Your task to perform on an android device: Open Youtube and go to "Your channel" Image 0: 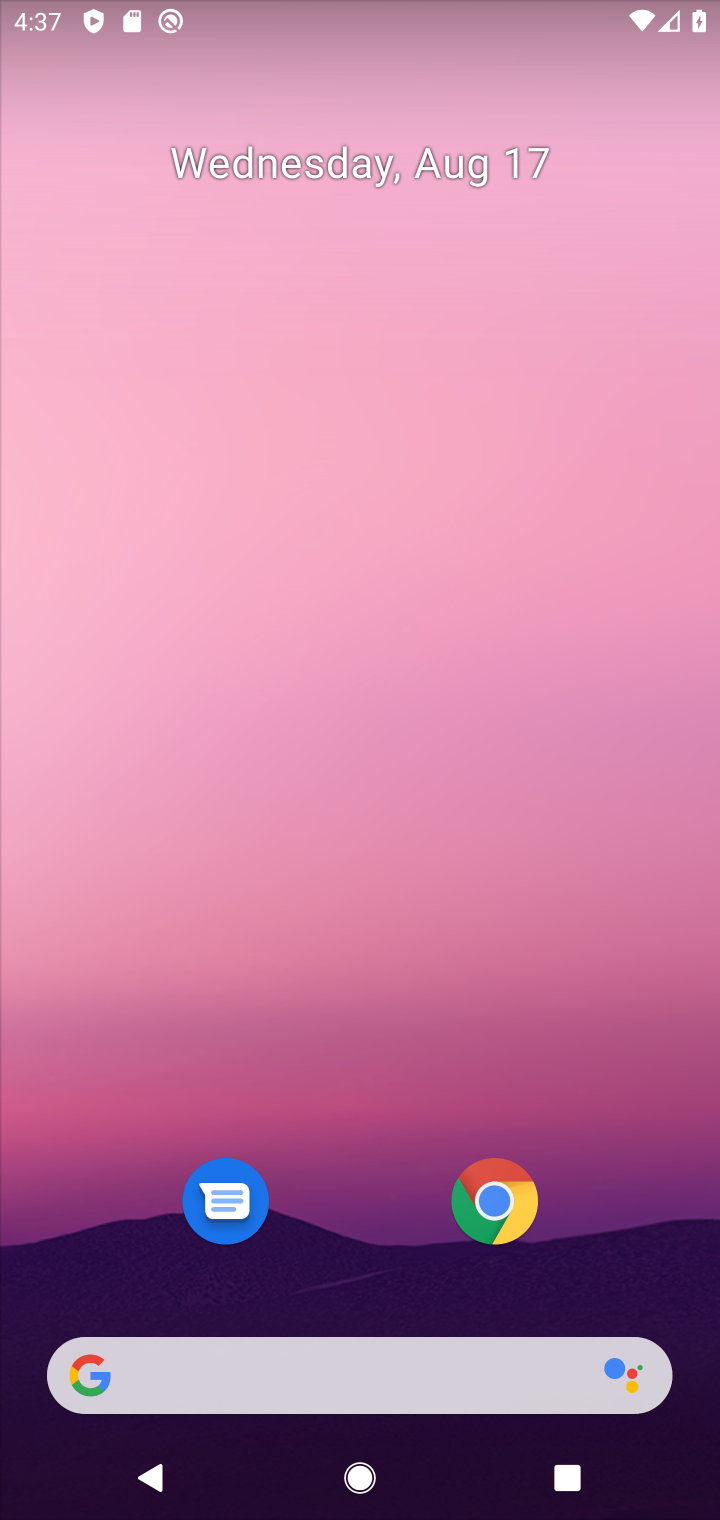
Step 0: press home button
Your task to perform on an android device: Open Youtube and go to "Your channel" Image 1: 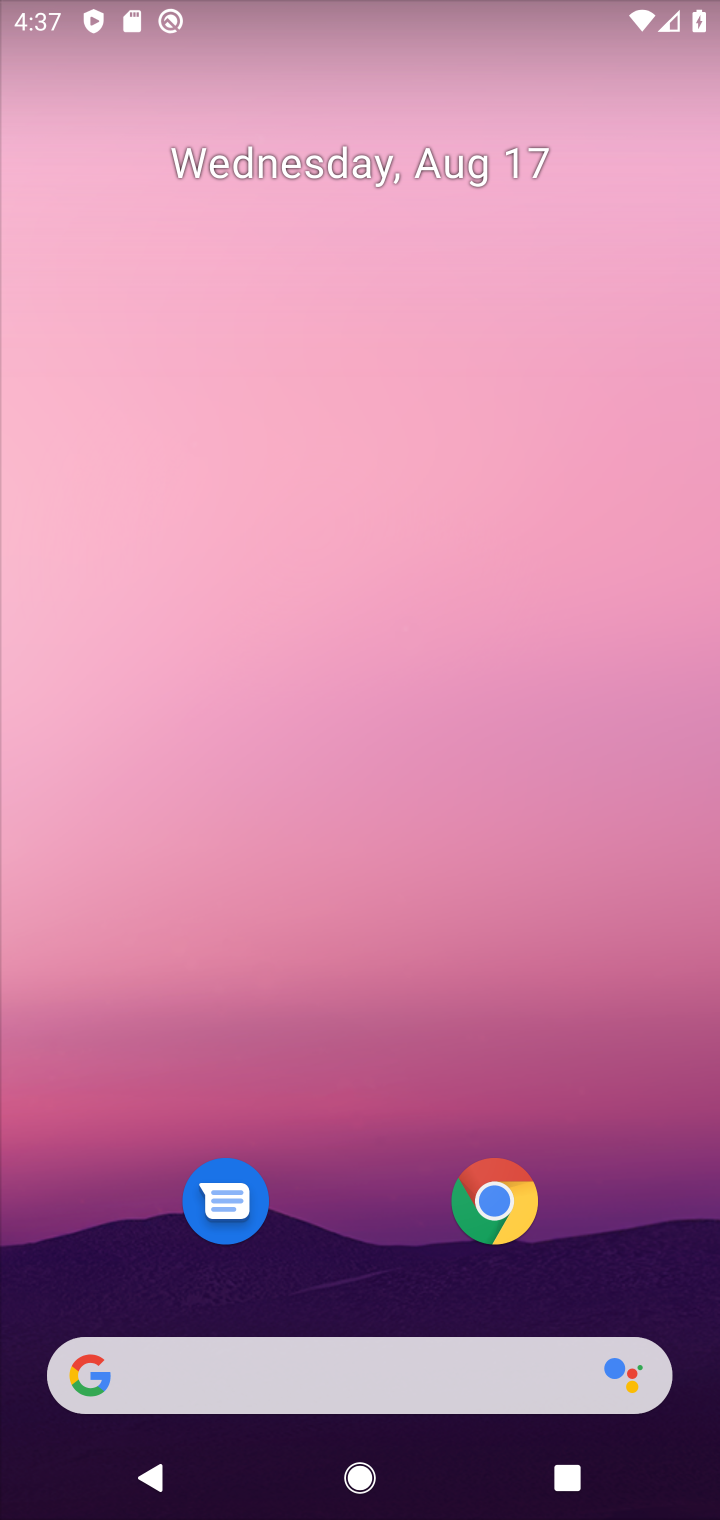
Step 1: click (503, 1200)
Your task to perform on an android device: Open Youtube and go to "Your channel" Image 2: 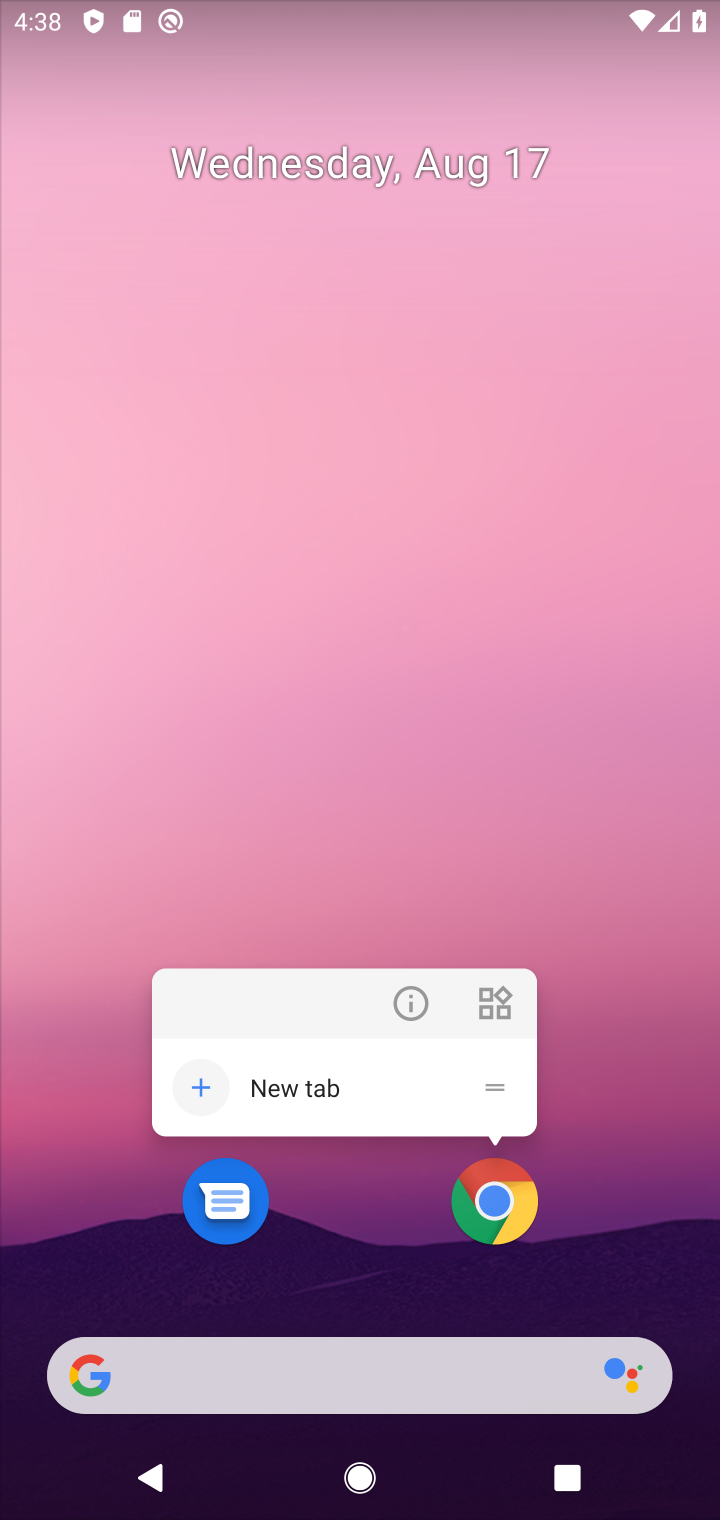
Step 2: click (486, 1207)
Your task to perform on an android device: Open Youtube and go to "Your channel" Image 3: 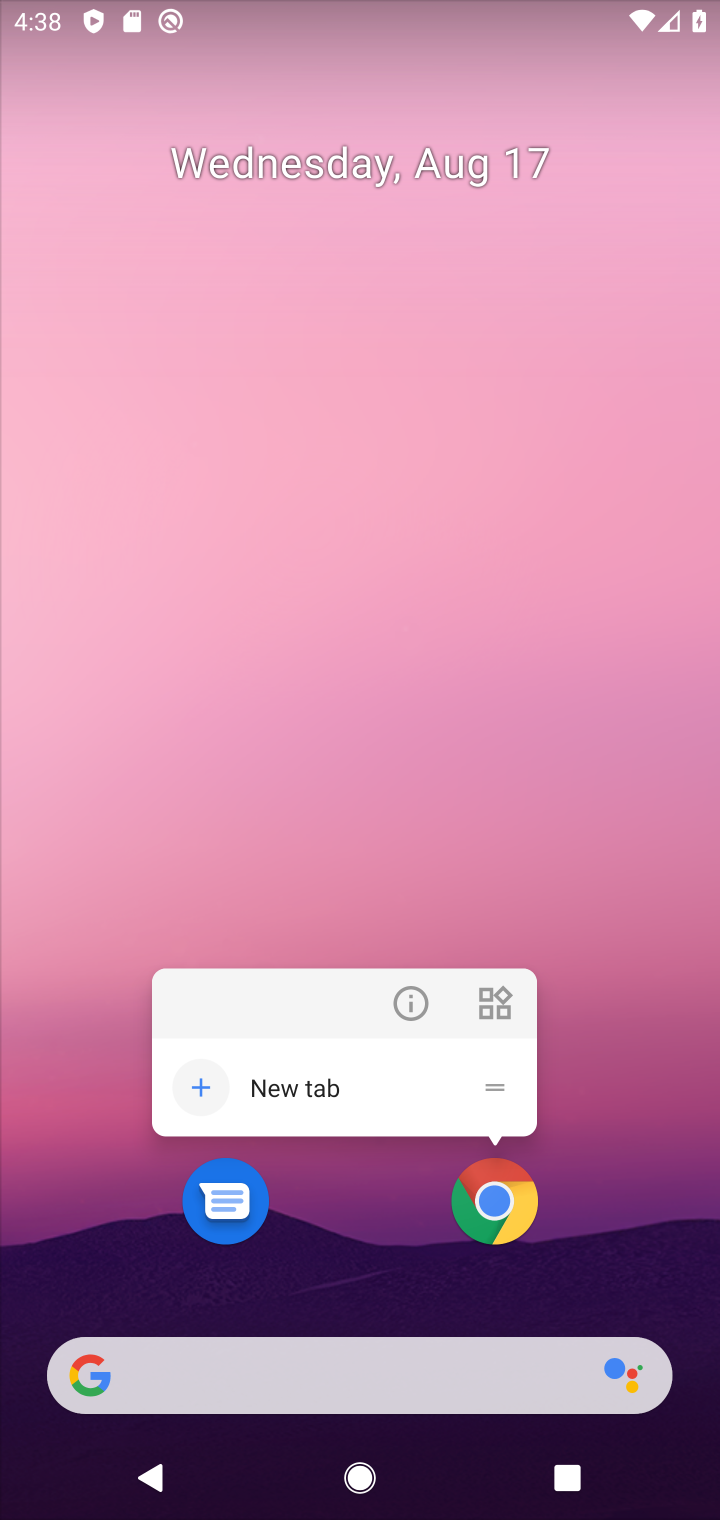
Step 3: drag from (615, 1282) to (620, 37)
Your task to perform on an android device: Open Youtube and go to "Your channel" Image 4: 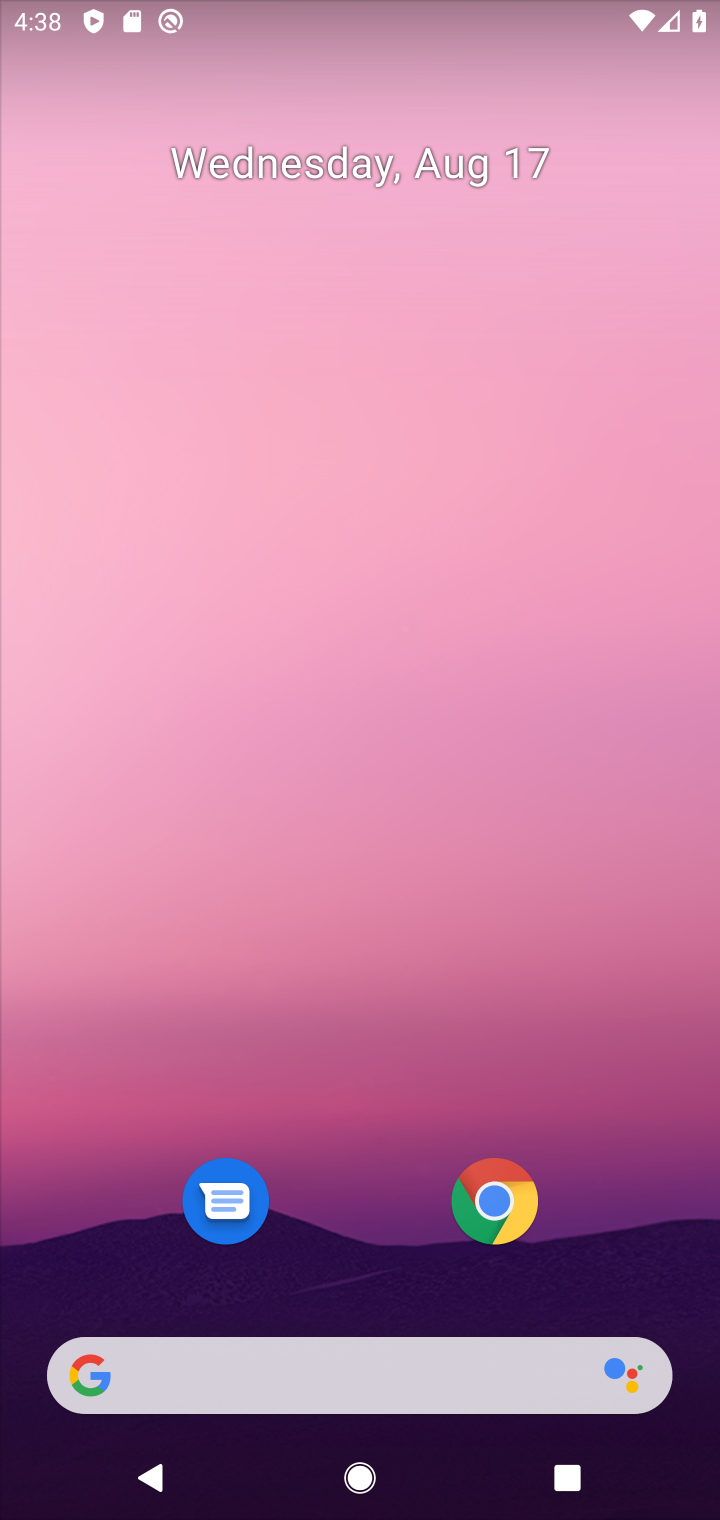
Step 4: drag from (566, 537) to (584, 4)
Your task to perform on an android device: Open Youtube and go to "Your channel" Image 5: 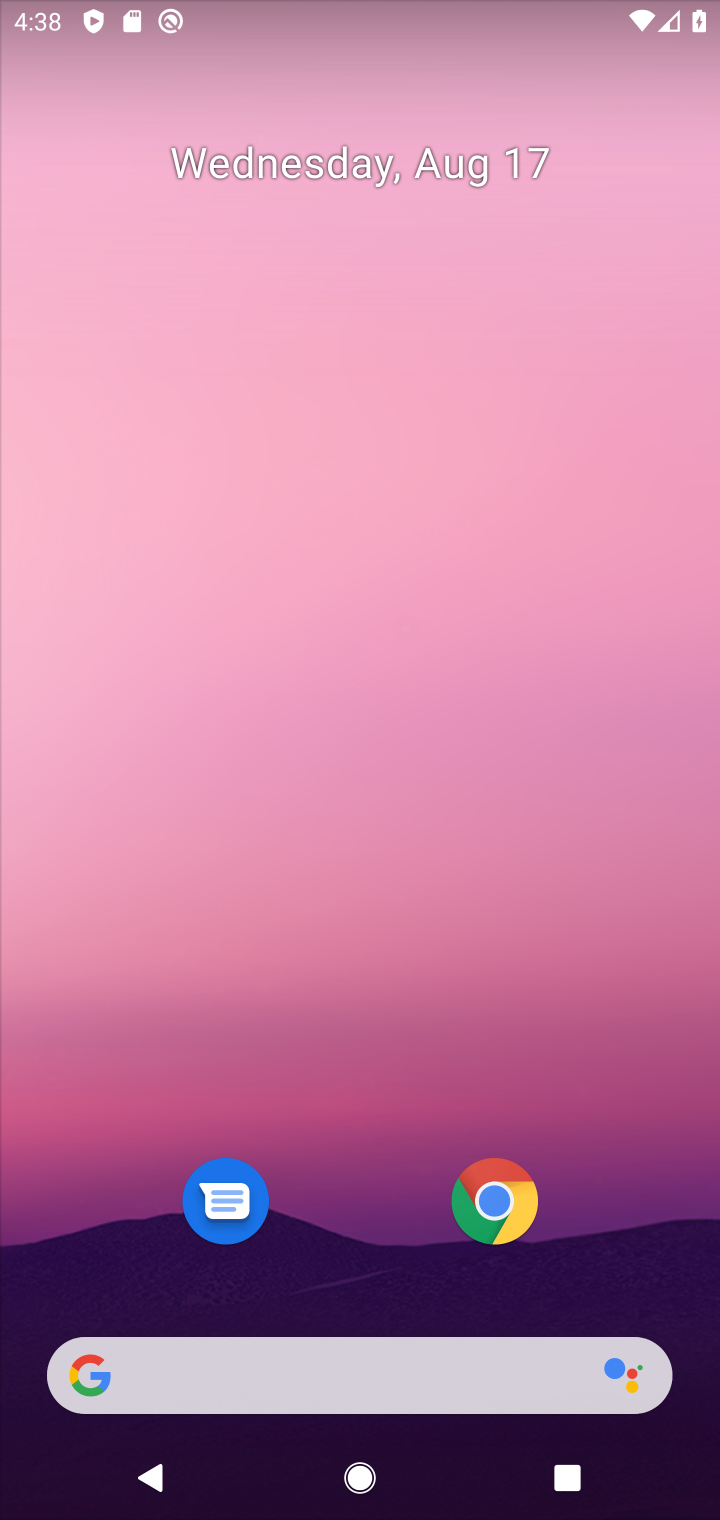
Step 5: drag from (390, 1289) to (492, 8)
Your task to perform on an android device: Open Youtube and go to "Your channel" Image 6: 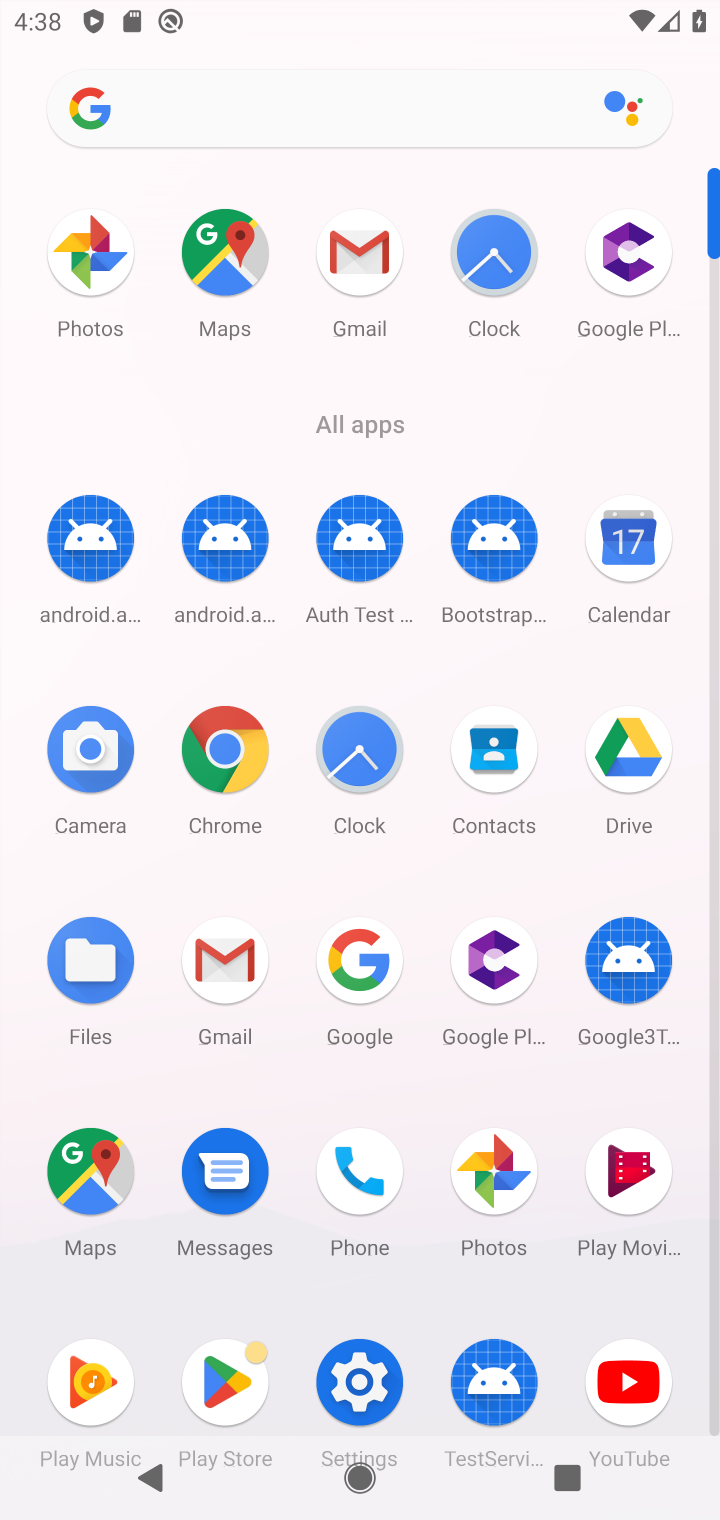
Step 6: click (615, 1376)
Your task to perform on an android device: Open Youtube and go to "Your channel" Image 7: 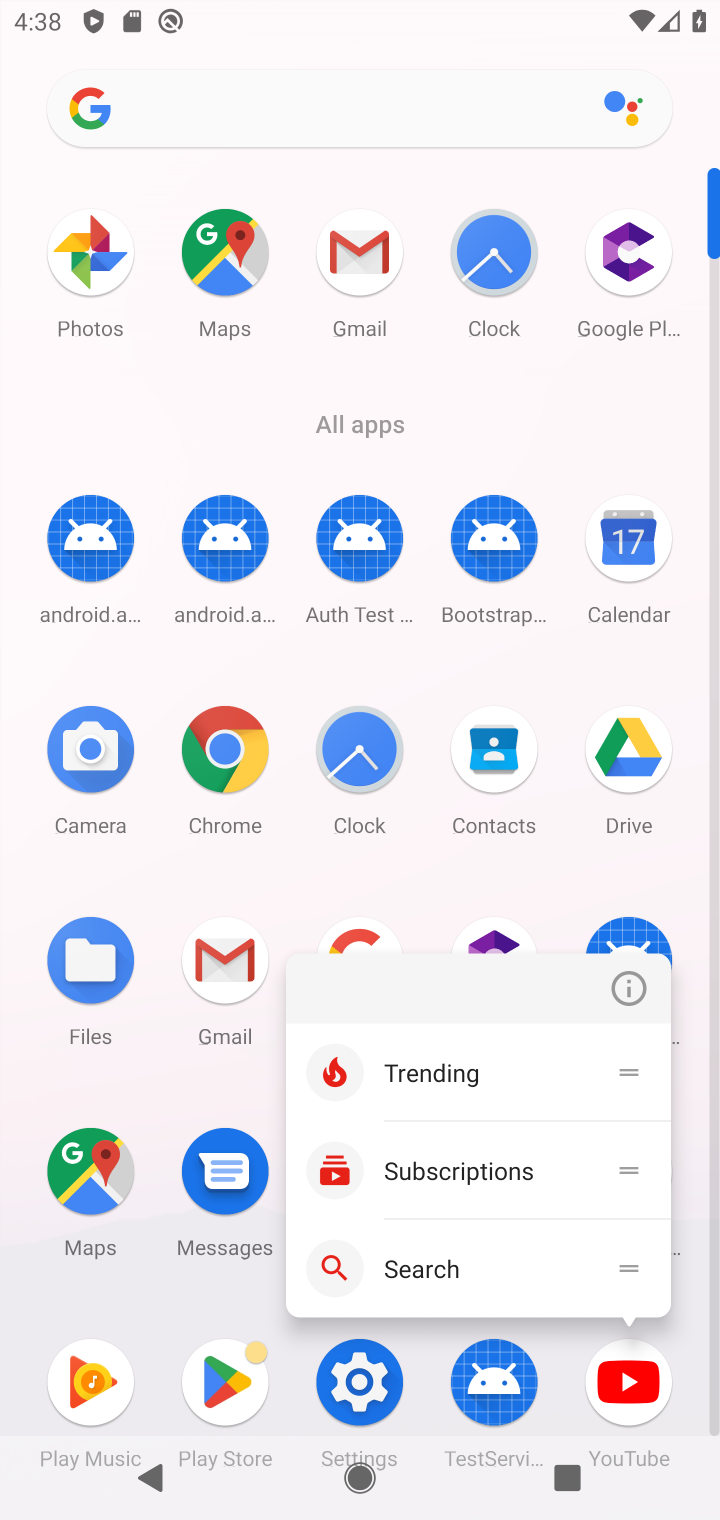
Step 7: click (626, 1400)
Your task to perform on an android device: Open Youtube and go to "Your channel" Image 8: 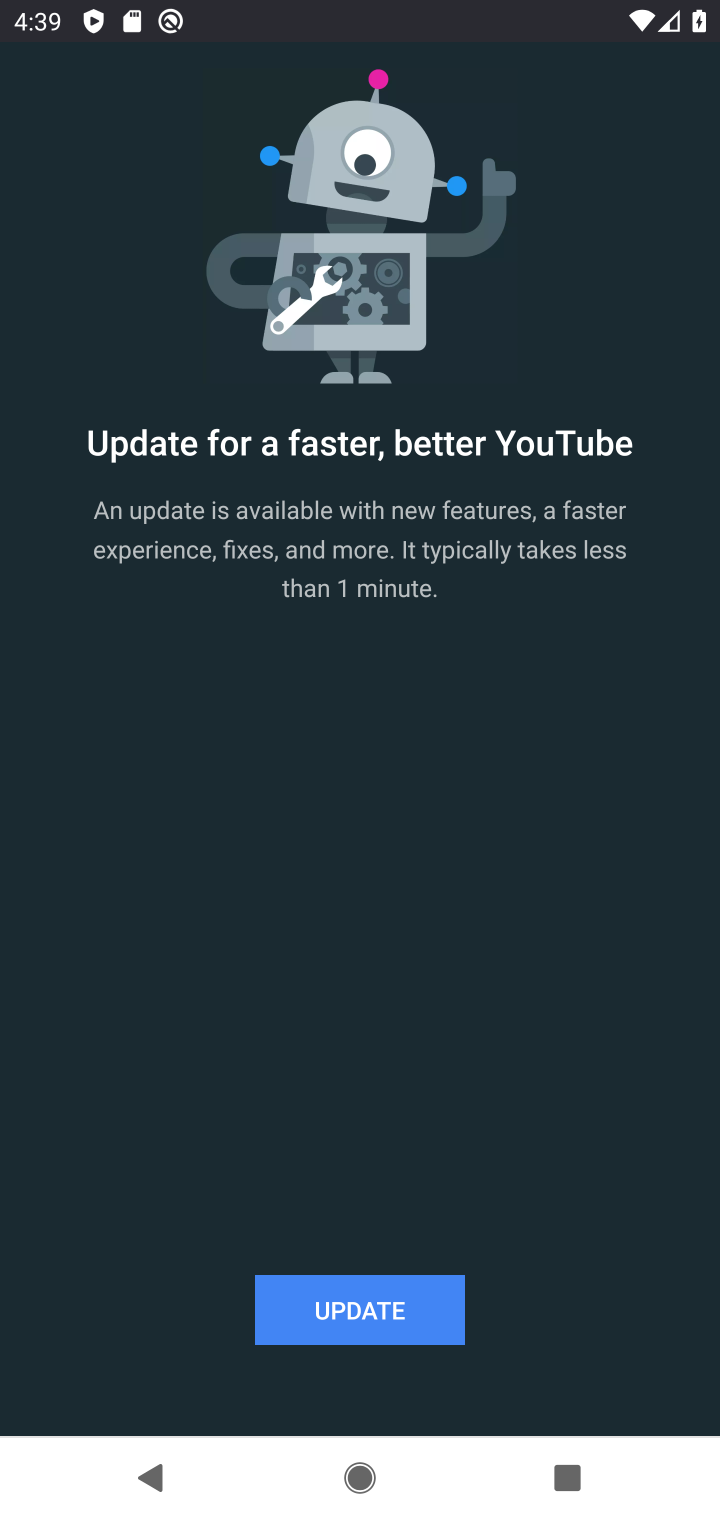
Step 8: click (343, 1338)
Your task to perform on an android device: Open Youtube and go to "Your channel" Image 9: 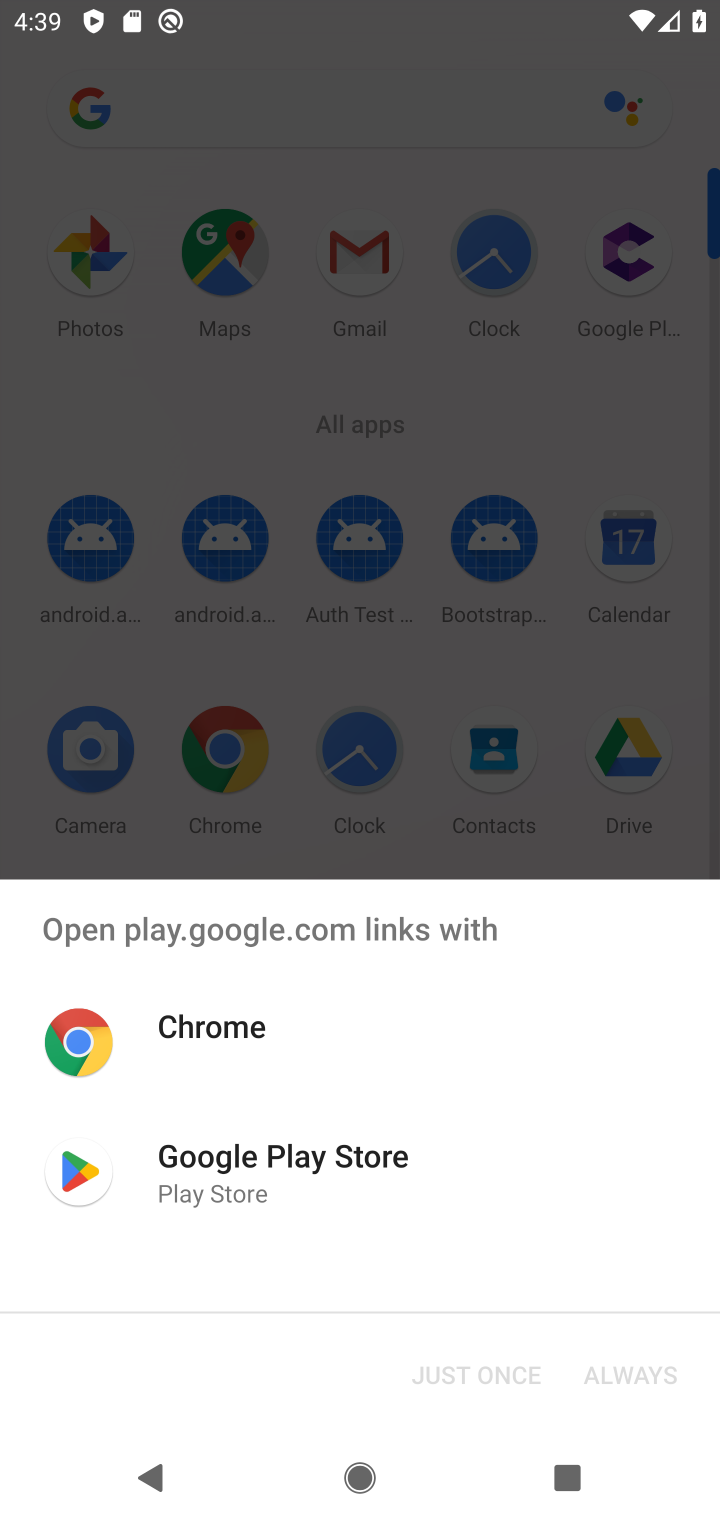
Step 9: click (179, 1189)
Your task to perform on an android device: Open Youtube and go to "Your channel" Image 10: 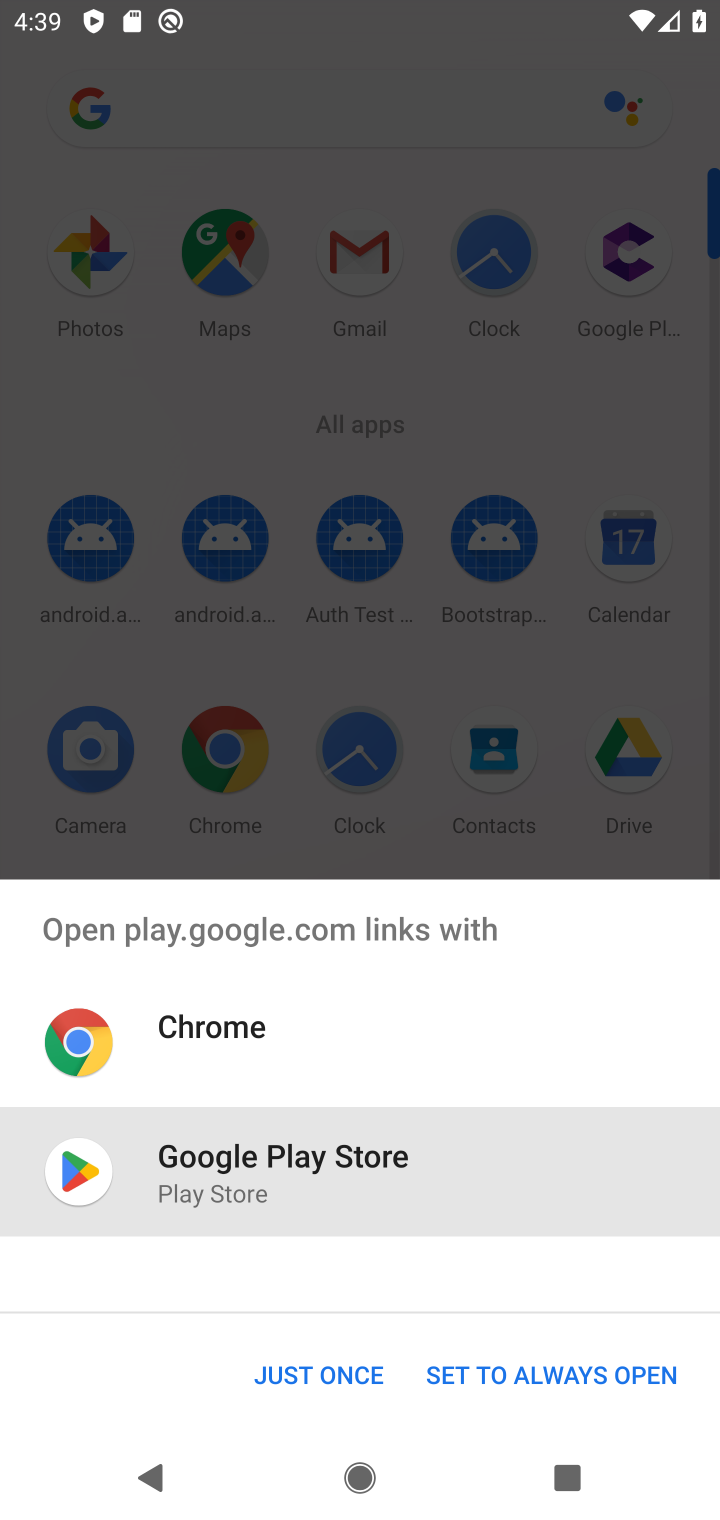
Step 10: click (323, 1378)
Your task to perform on an android device: Open Youtube and go to "Your channel" Image 11: 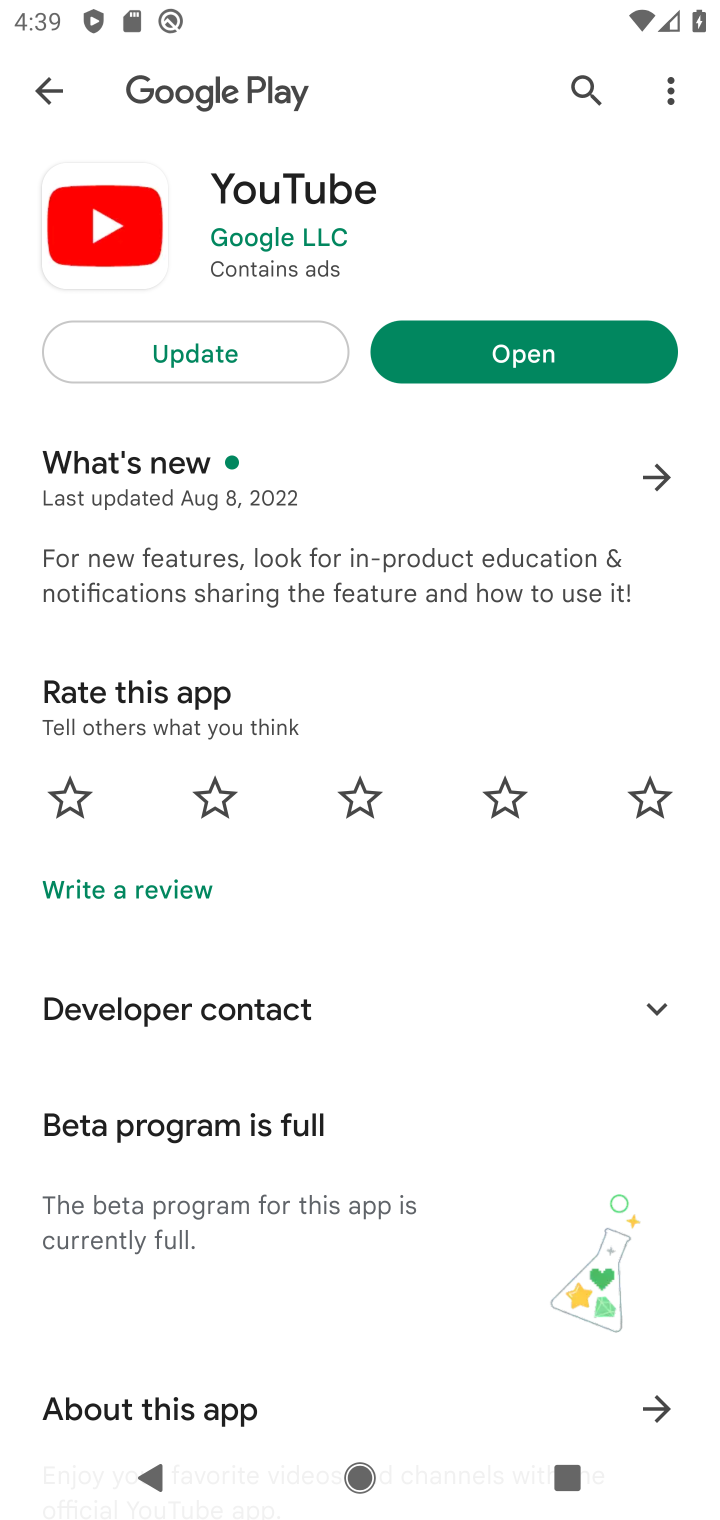
Step 11: click (237, 365)
Your task to perform on an android device: Open Youtube and go to "Your channel" Image 12: 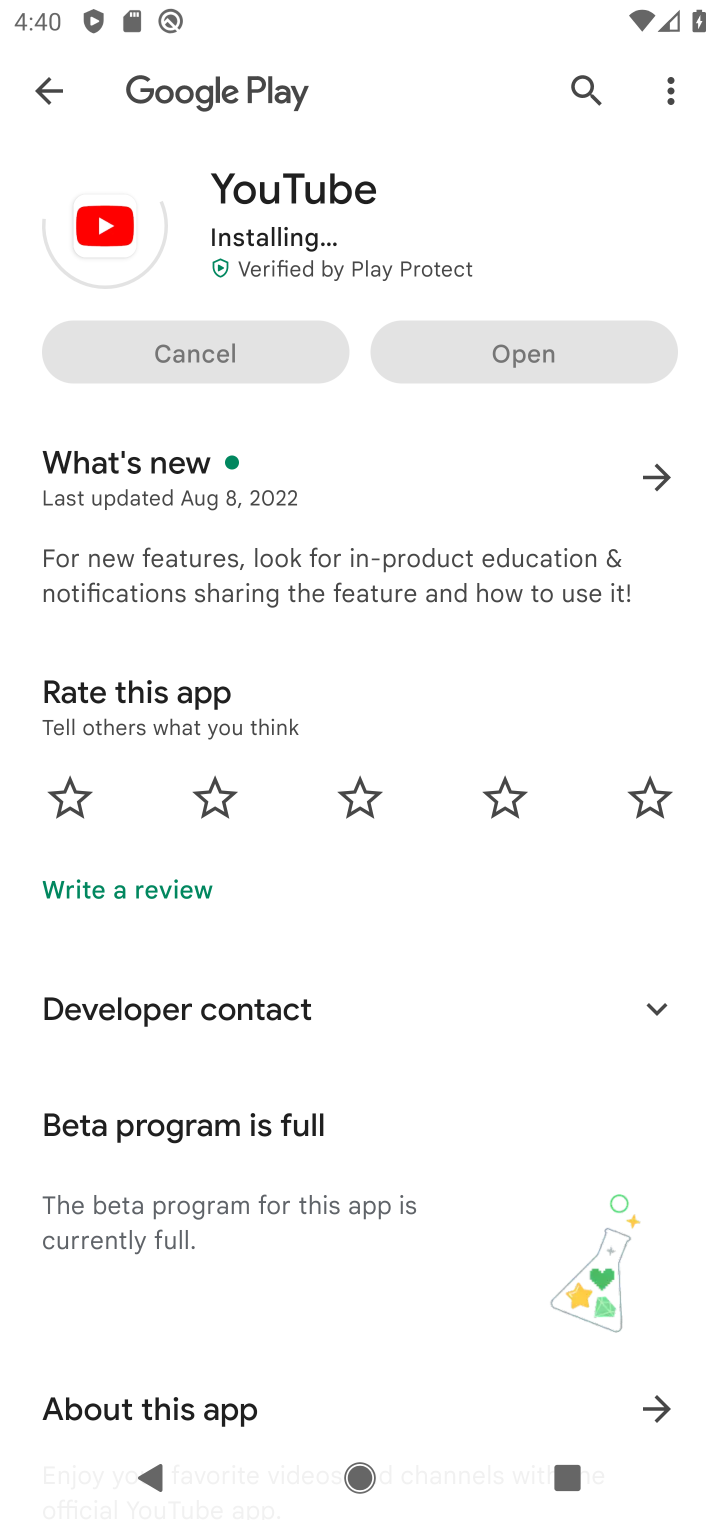
Step 12: task complete